Your task to perform on an android device: install app "Google Play Music" Image 0: 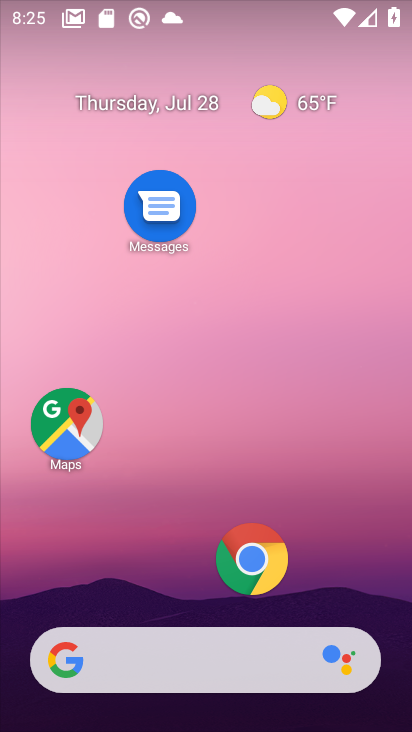
Step 0: drag from (145, 565) to (159, 117)
Your task to perform on an android device: install app "Google Play Music" Image 1: 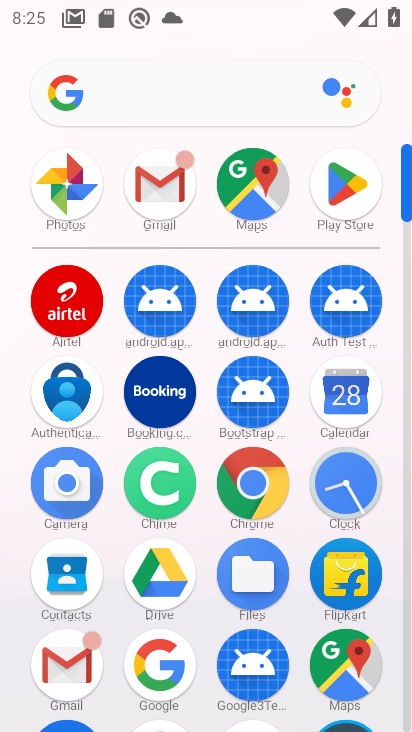
Step 1: drag from (198, 633) to (200, 462)
Your task to perform on an android device: install app "Google Play Music" Image 2: 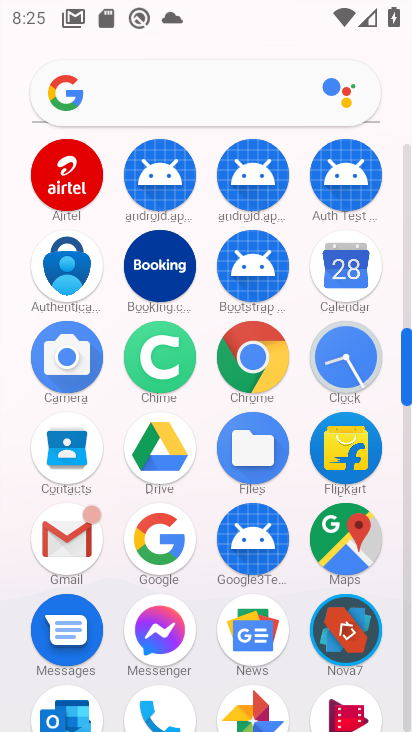
Step 2: drag from (318, 169) to (319, 502)
Your task to perform on an android device: install app "Google Play Music" Image 3: 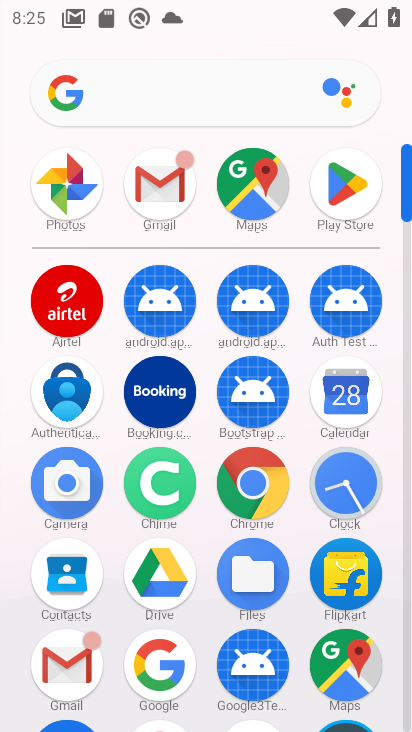
Step 3: click (355, 196)
Your task to perform on an android device: install app "Google Play Music" Image 4: 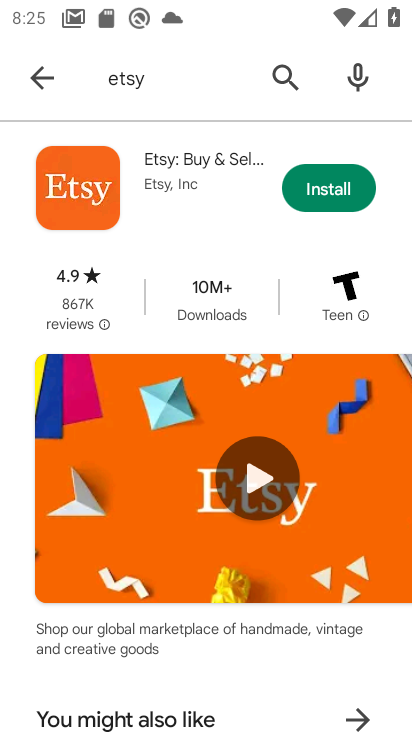
Step 4: click (140, 89)
Your task to perform on an android device: install app "Google Play Music" Image 5: 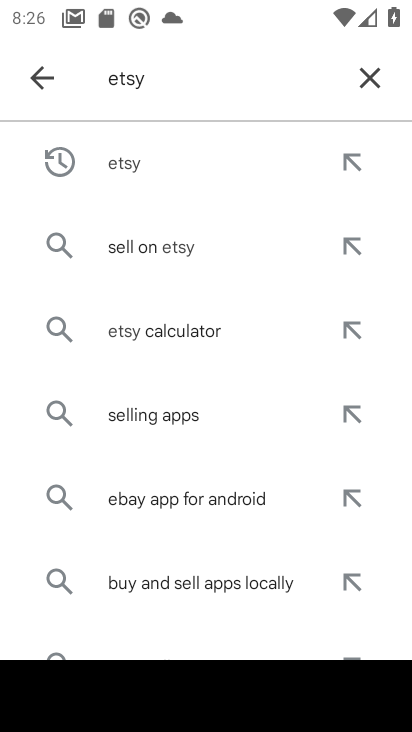
Step 5: click (360, 82)
Your task to perform on an android device: install app "Google Play Music" Image 6: 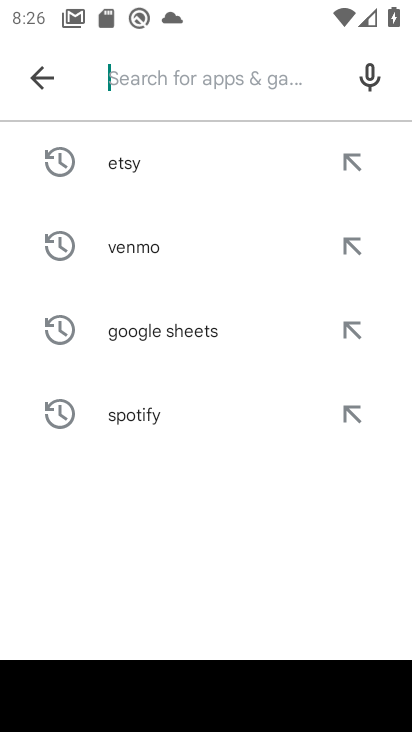
Step 6: type "Google Play Music"
Your task to perform on an android device: install app "Google Play Music" Image 7: 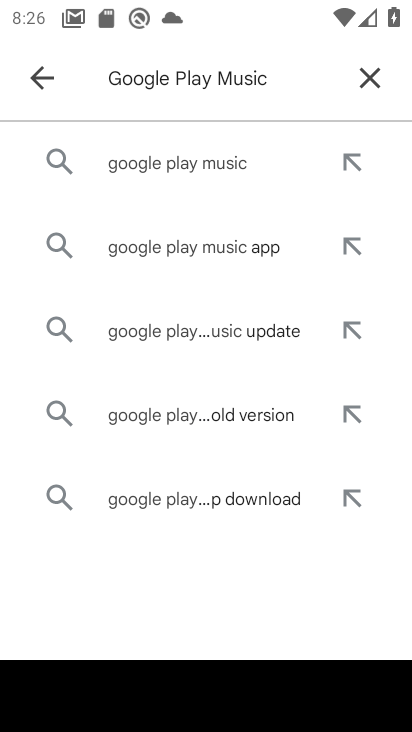
Step 7: click (181, 196)
Your task to perform on an android device: install app "Google Play Music" Image 8: 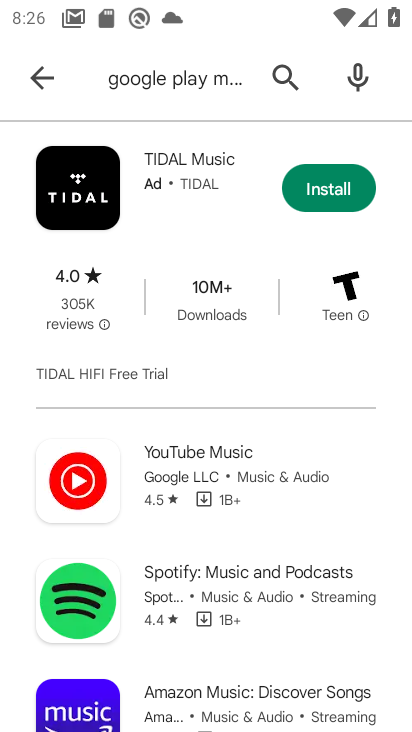
Step 8: task complete